Your task to perform on an android device: Search for a new foundation (skincare) product Image 0: 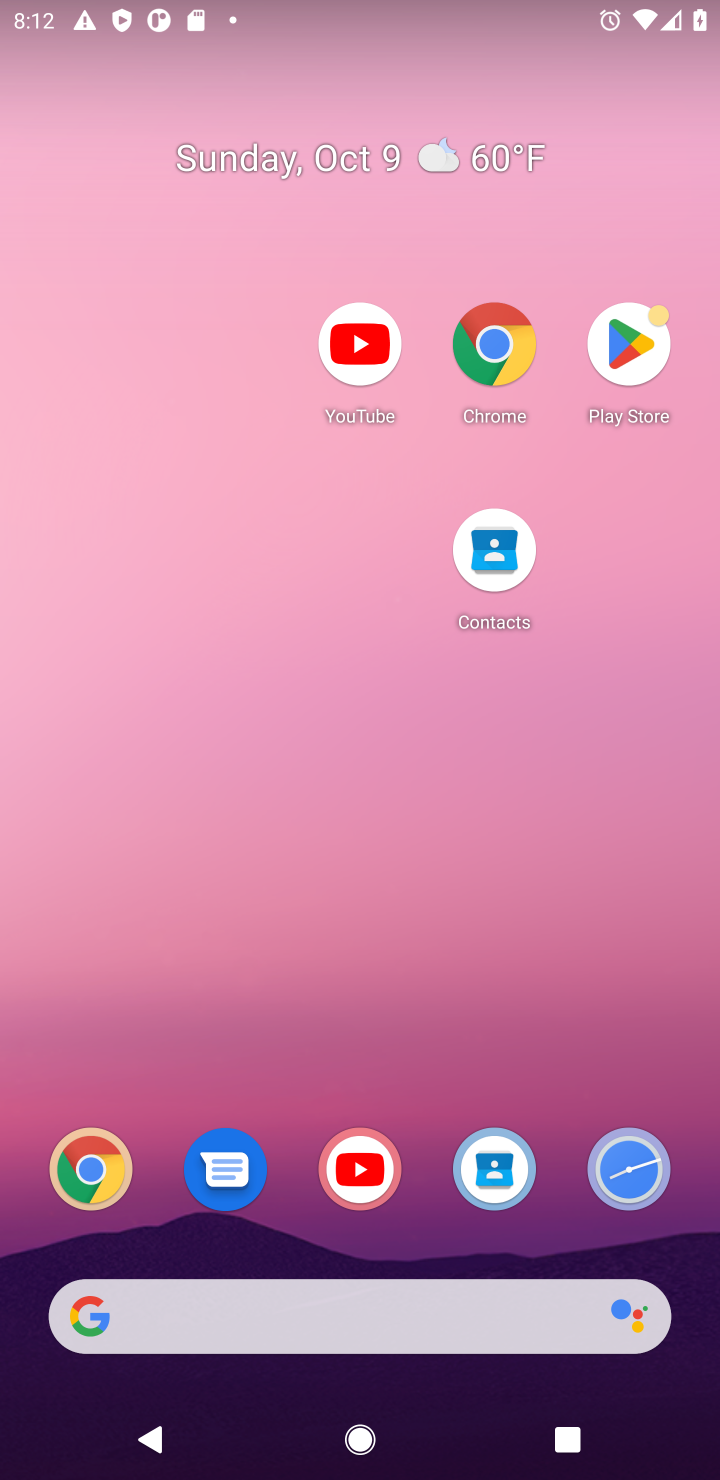
Step 0: drag from (410, 1233) to (330, 348)
Your task to perform on an android device: Search for a new foundation (skincare) product Image 1: 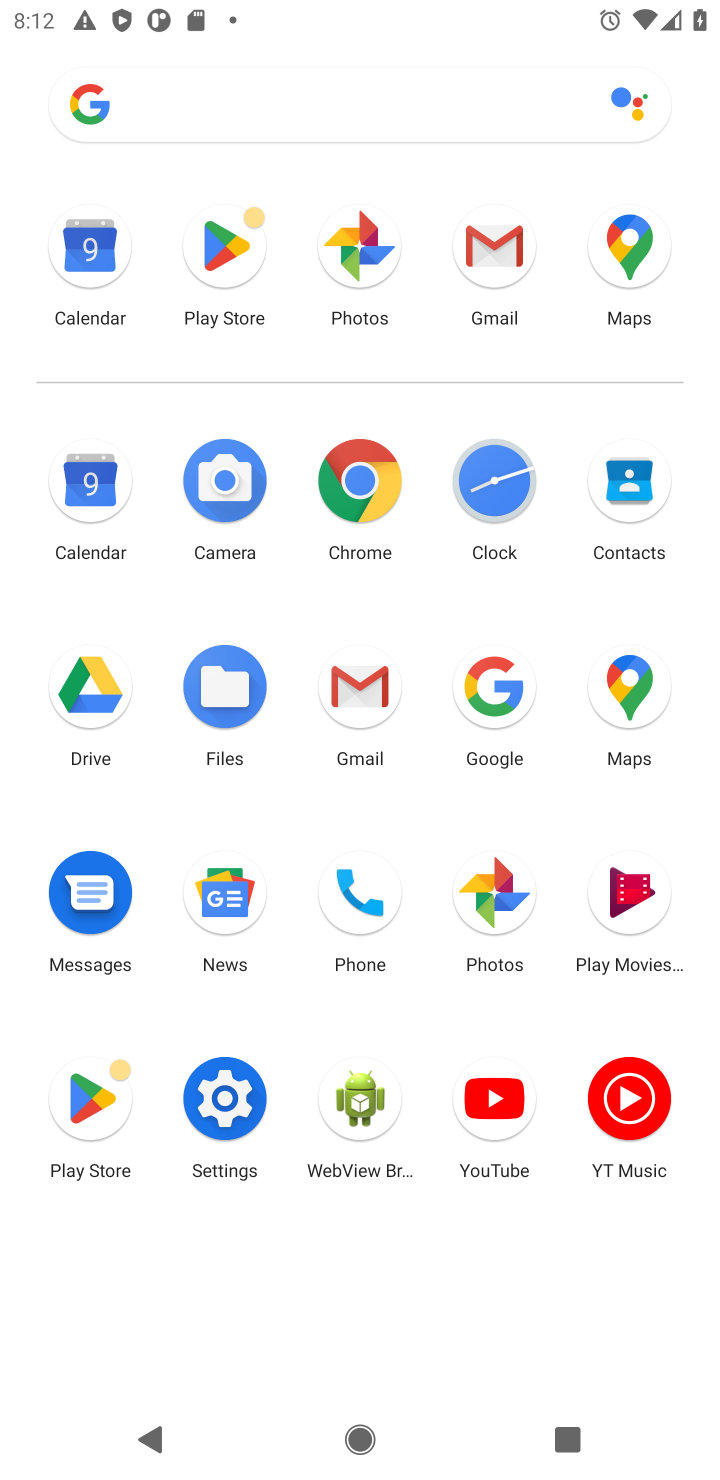
Step 1: click (361, 475)
Your task to perform on an android device: Search for a new foundation (skincare) product Image 2: 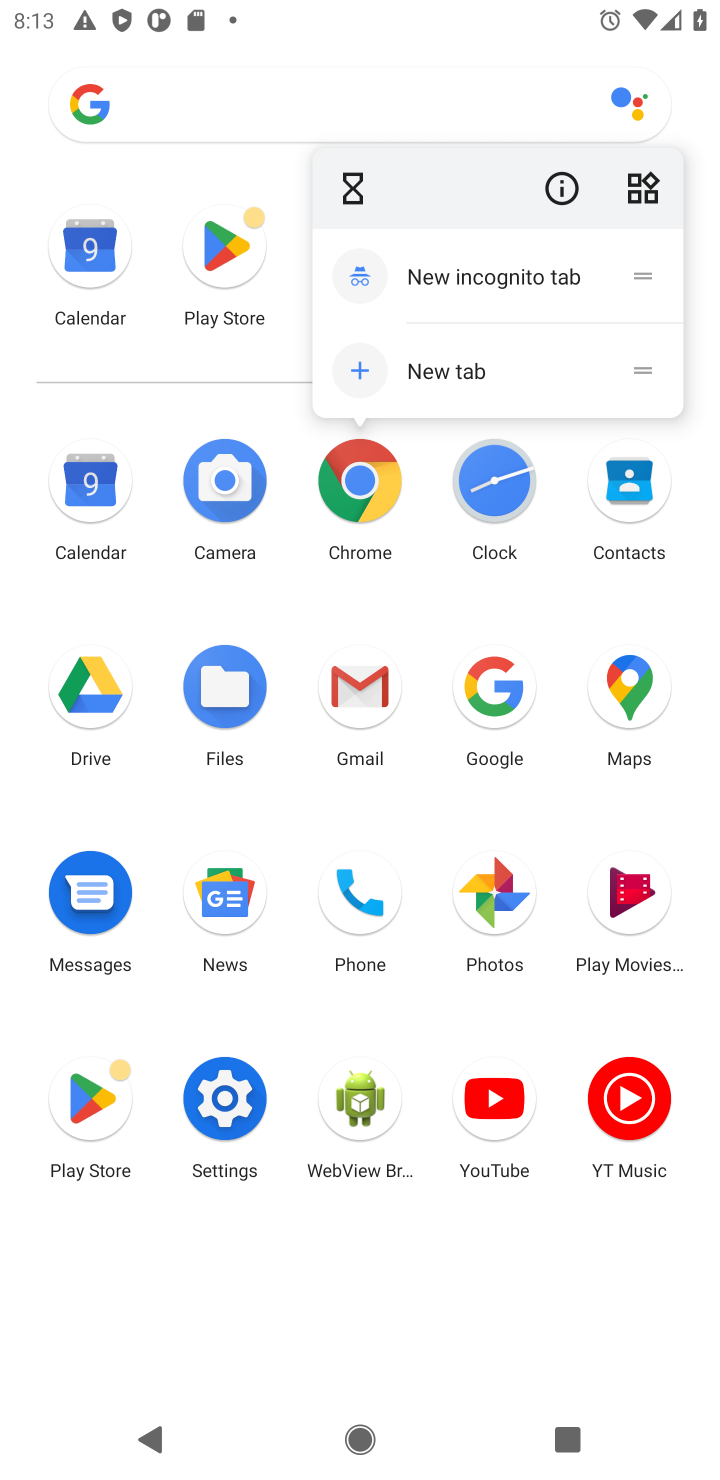
Step 2: click (361, 475)
Your task to perform on an android device: Search for a new foundation (skincare) product Image 3: 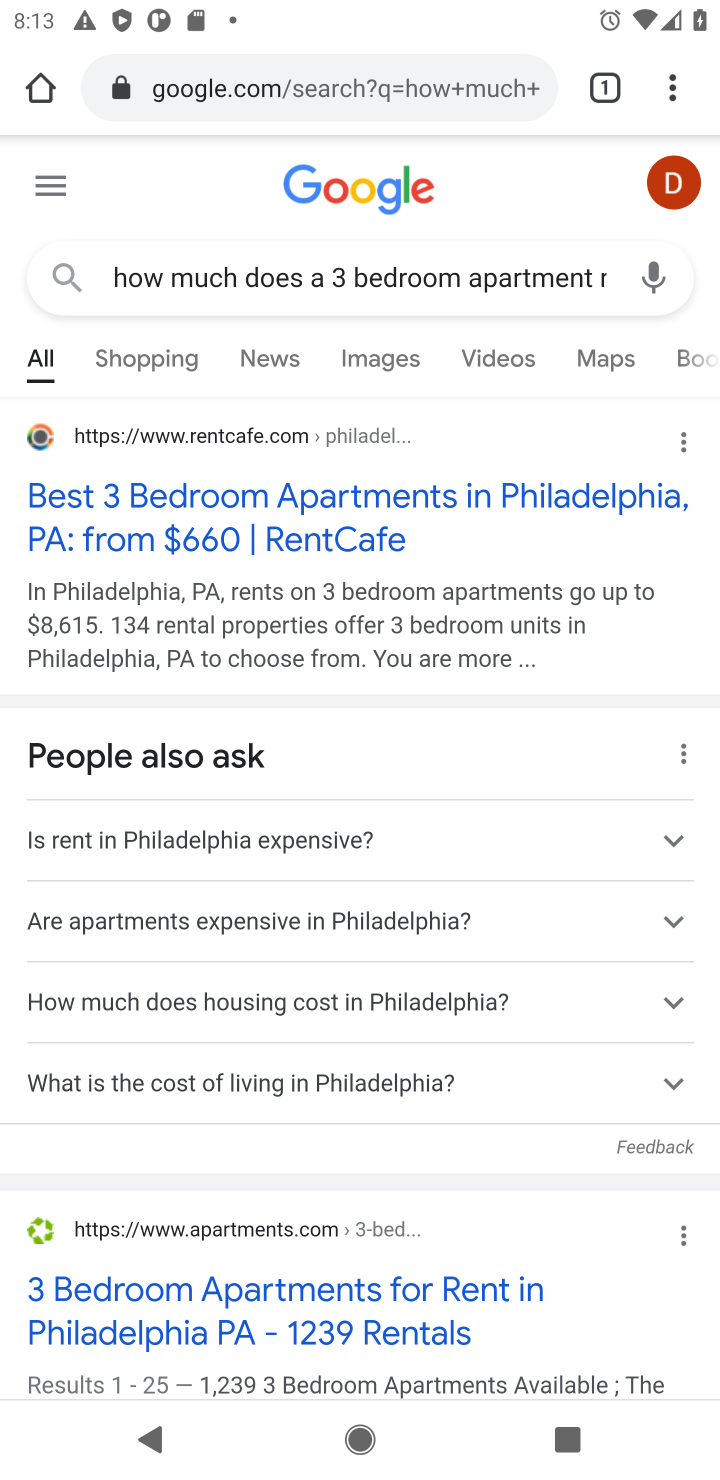
Step 3: click (299, 89)
Your task to perform on an android device: Search for a new foundation (skincare) product Image 4: 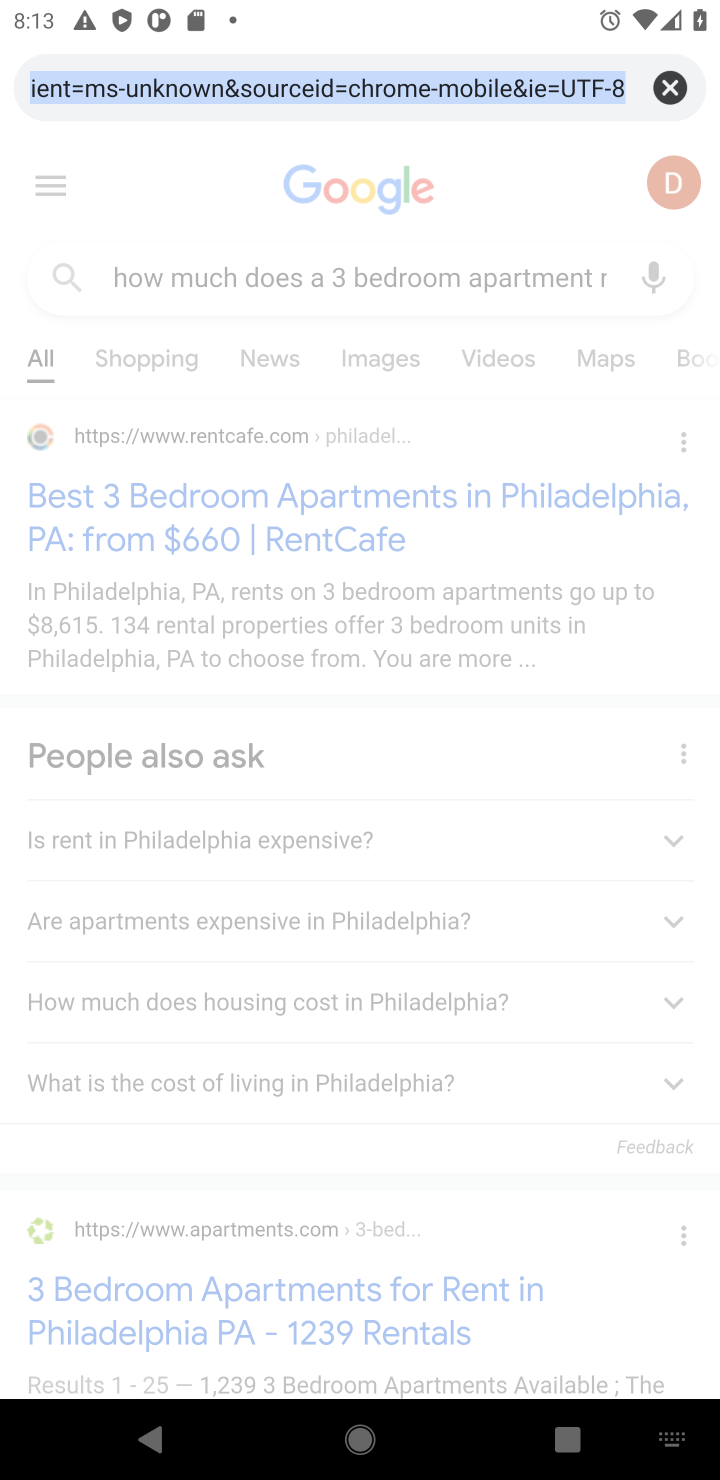
Step 4: type "a new foundation (skincare) product"
Your task to perform on an android device: Search for a new foundation (skincare) product Image 5: 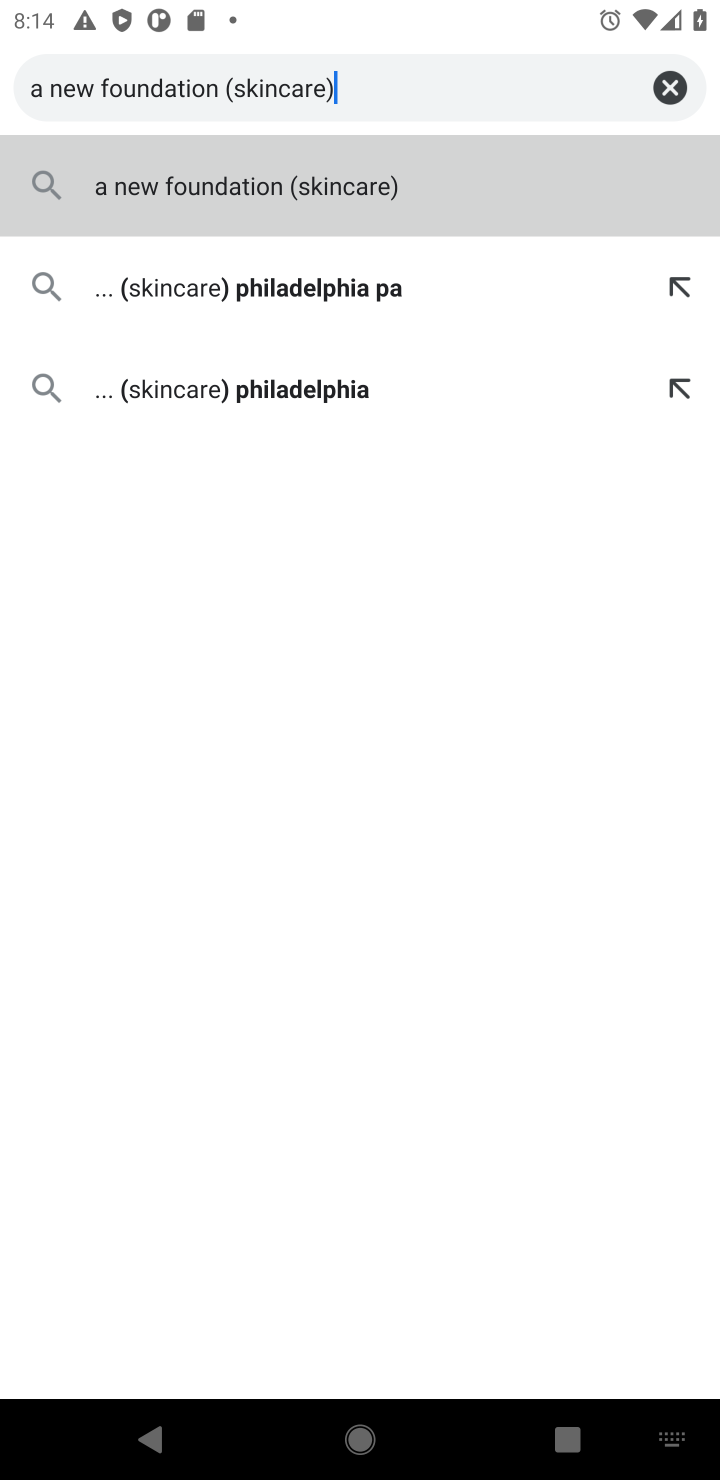
Step 5: type " product"
Your task to perform on an android device: Search for a new foundation (skincare) product Image 6: 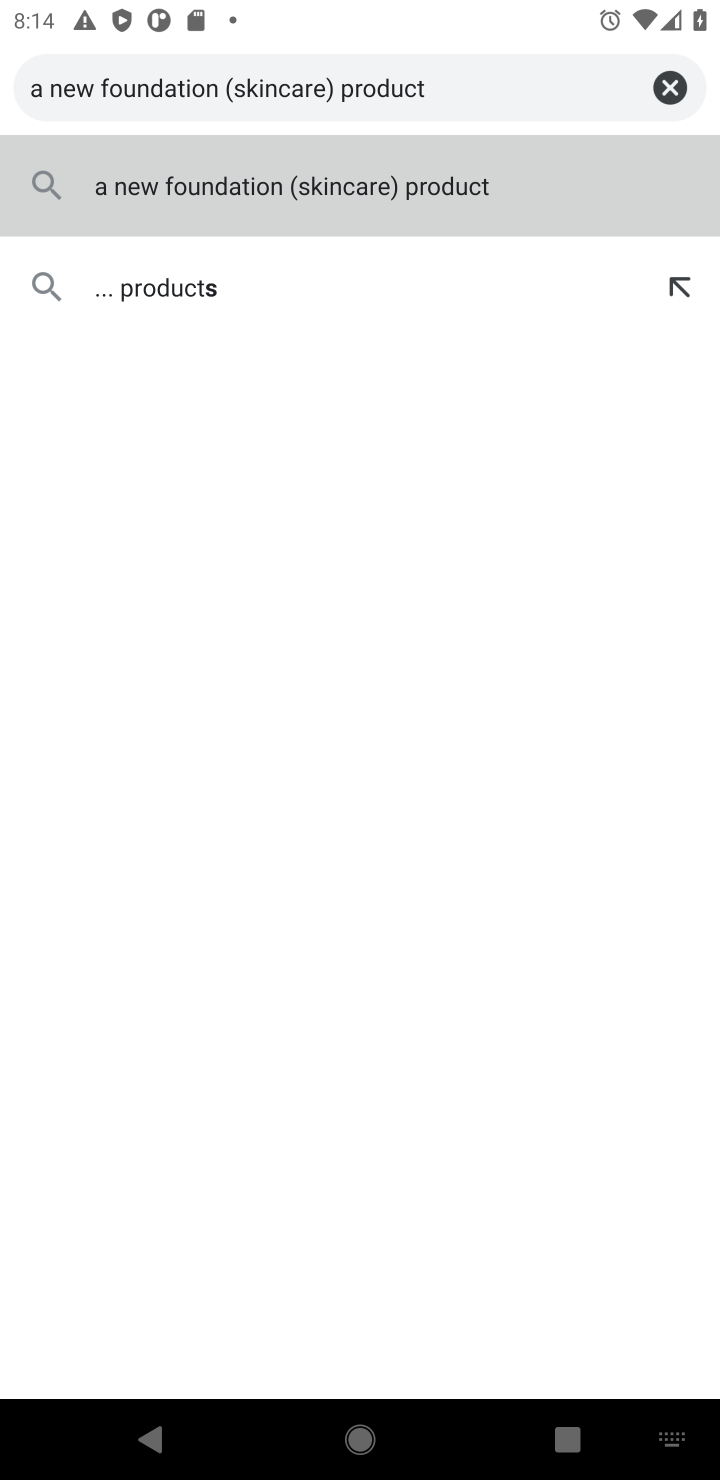
Step 6: press enter
Your task to perform on an android device: Search for a new foundation (skincare) product Image 7: 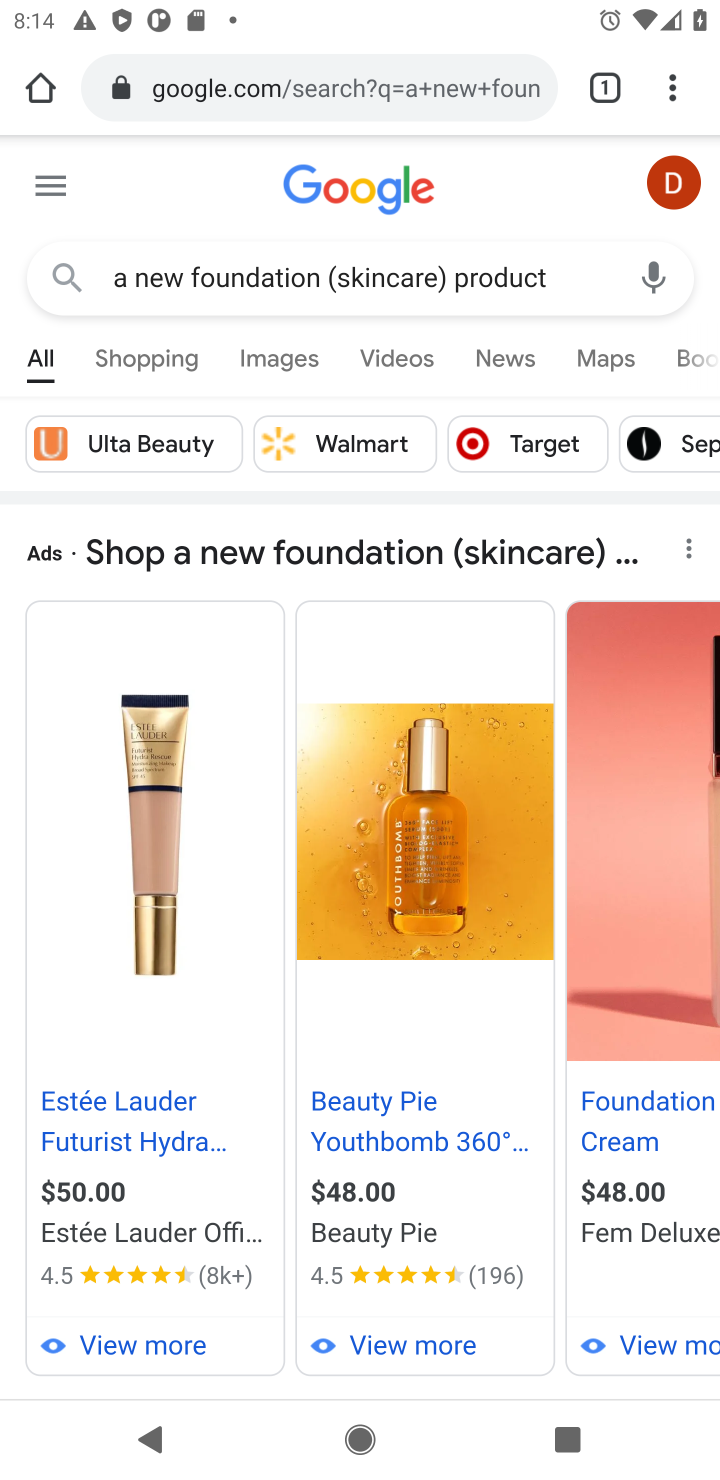
Step 7: task complete